Your task to perform on an android device: change notification settings in the gmail app Image 0: 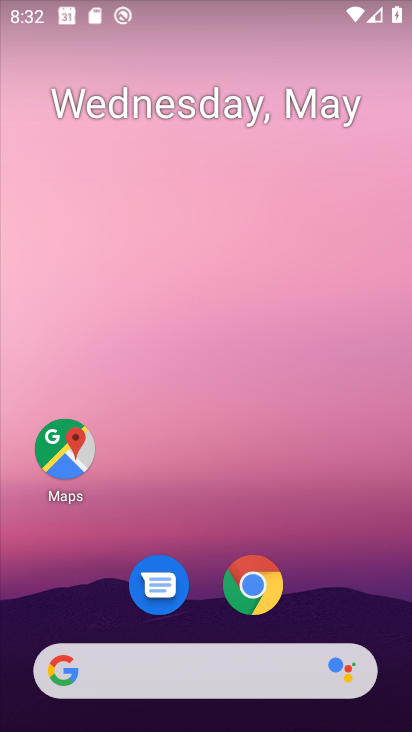
Step 0: drag from (324, 550) to (282, 29)
Your task to perform on an android device: change notification settings in the gmail app Image 1: 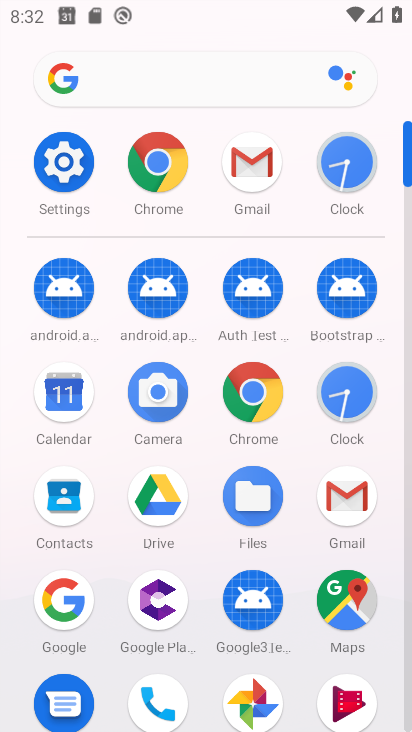
Step 1: click (257, 142)
Your task to perform on an android device: change notification settings in the gmail app Image 2: 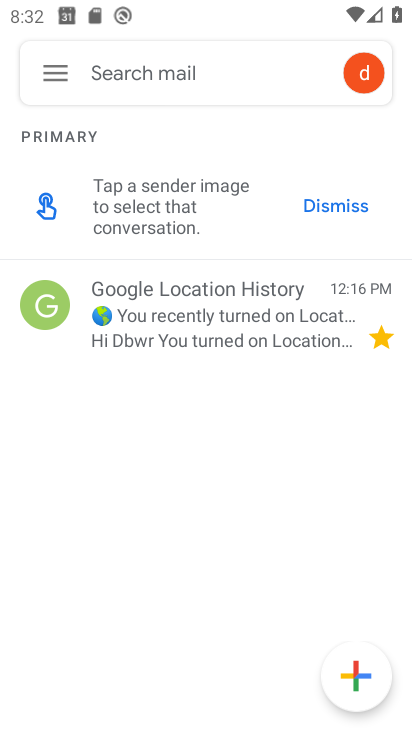
Step 2: click (54, 79)
Your task to perform on an android device: change notification settings in the gmail app Image 3: 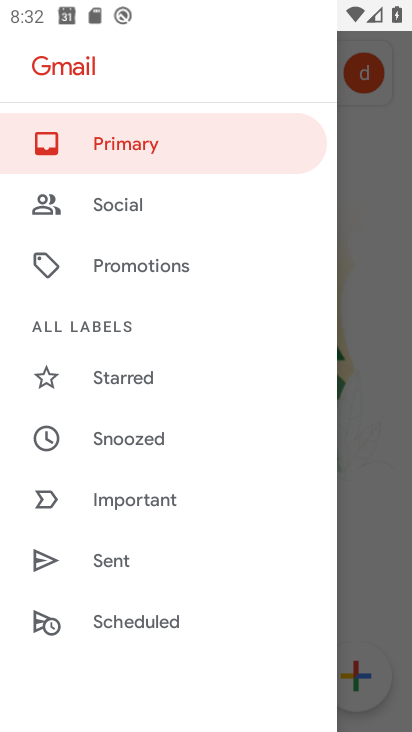
Step 3: drag from (151, 560) to (182, 215)
Your task to perform on an android device: change notification settings in the gmail app Image 4: 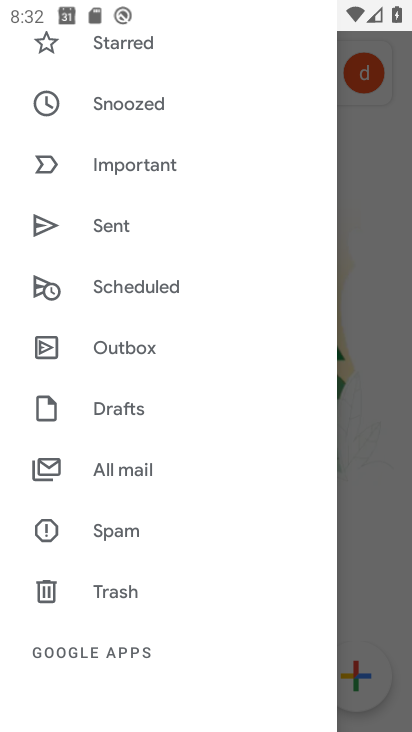
Step 4: drag from (176, 536) to (198, 233)
Your task to perform on an android device: change notification settings in the gmail app Image 5: 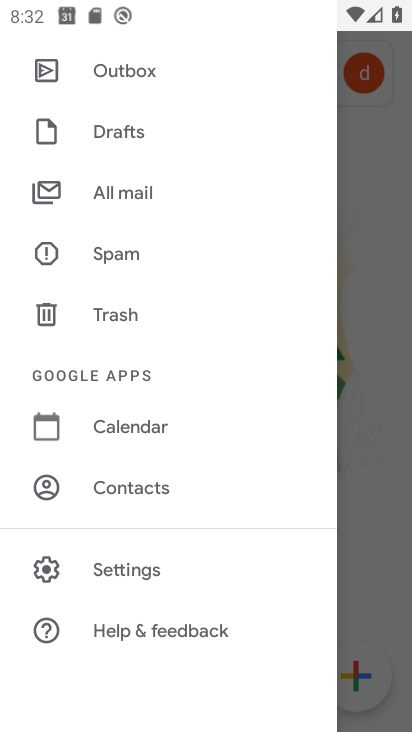
Step 5: click (163, 562)
Your task to perform on an android device: change notification settings in the gmail app Image 6: 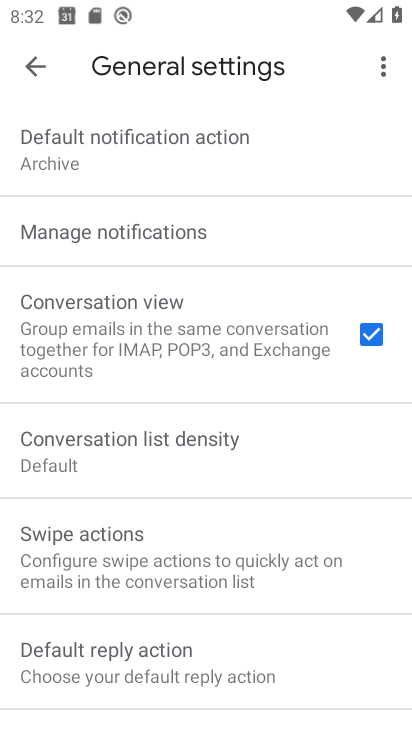
Step 6: click (203, 224)
Your task to perform on an android device: change notification settings in the gmail app Image 7: 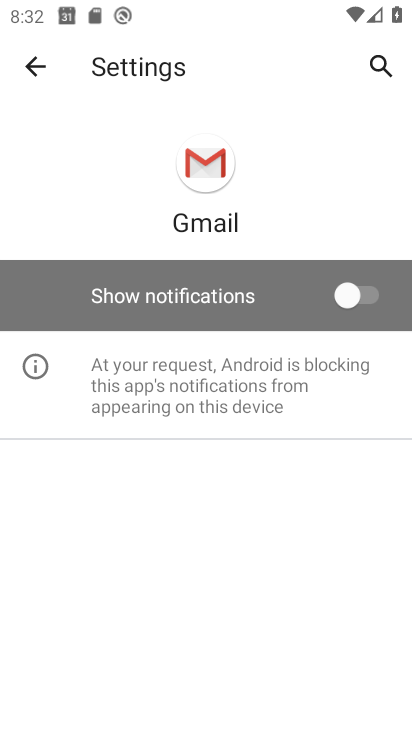
Step 7: click (370, 301)
Your task to perform on an android device: change notification settings in the gmail app Image 8: 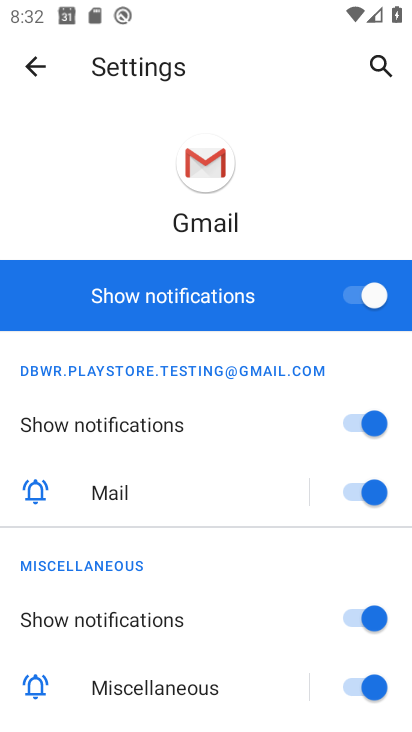
Step 8: task complete